Your task to perform on an android device: Open battery settings Image 0: 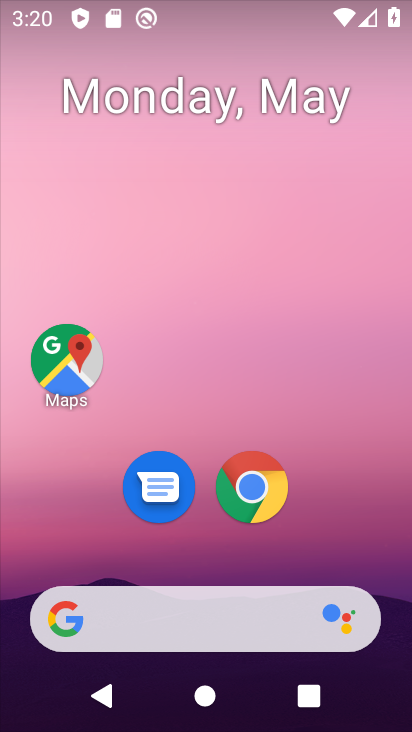
Step 0: drag from (231, 582) to (264, 245)
Your task to perform on an android device: Open battery settings Image 1: 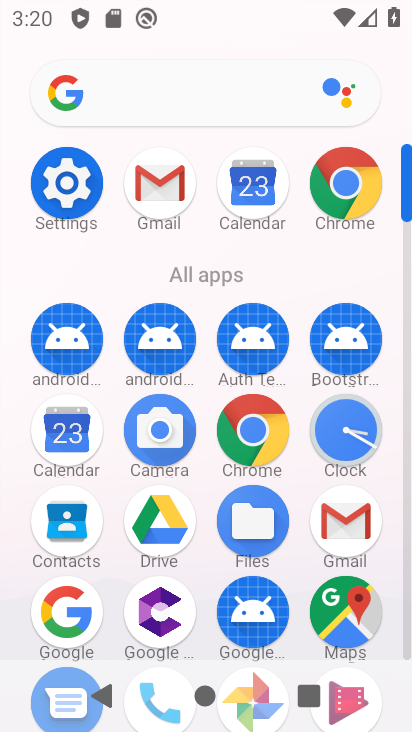
Step 1: click (78, 187)
Your task to perform on an android device: Open battery settings Image 2: 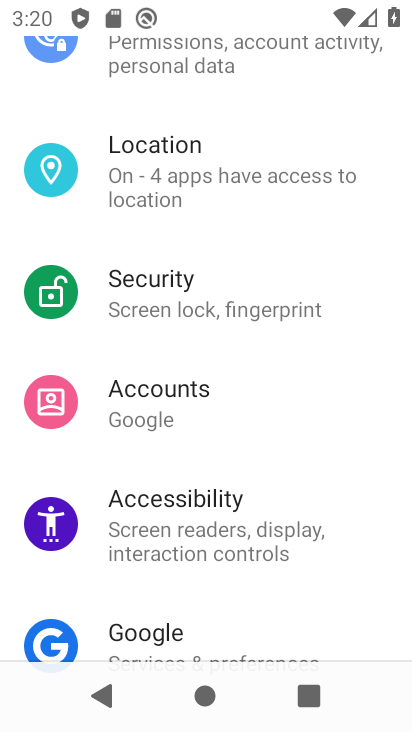
Step 2: drag from (190, 641) to (245, 233)
Your task to perform on an android device: Open battery settings Image 3: 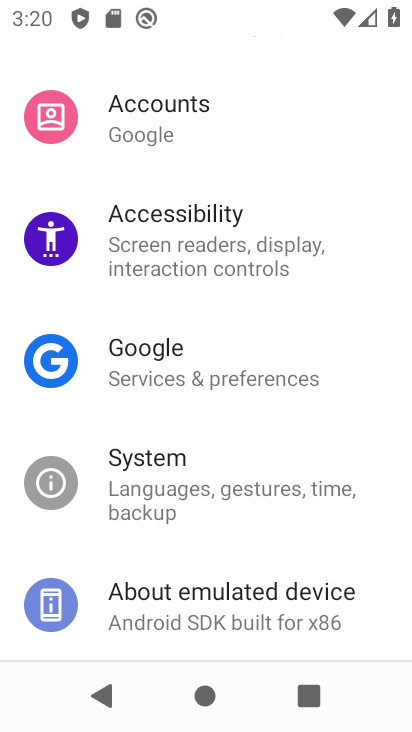
Step 3: drag from (240, 162) to (228, 610)
Your task to perform on an android device: Open battery settings Image 4: 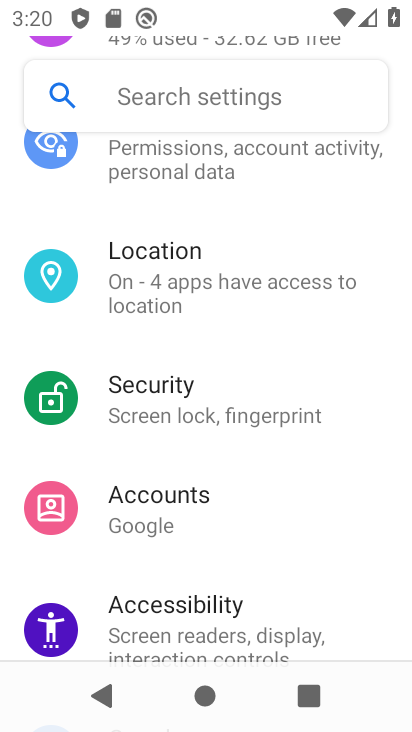
Step 4: drag from (242, 226) to (249, 570)
Your task to perform on an android device: Open battery settings Image 5: 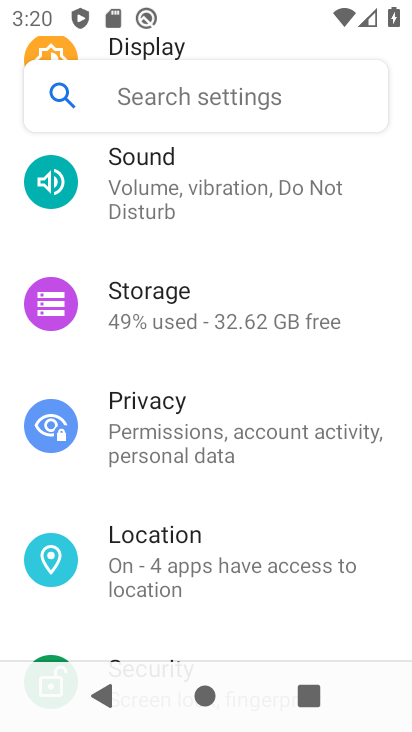
Step 5: drag from (192, 178) to (204, 522)
Your task to perform on an android device: Open battery settings Image 6: 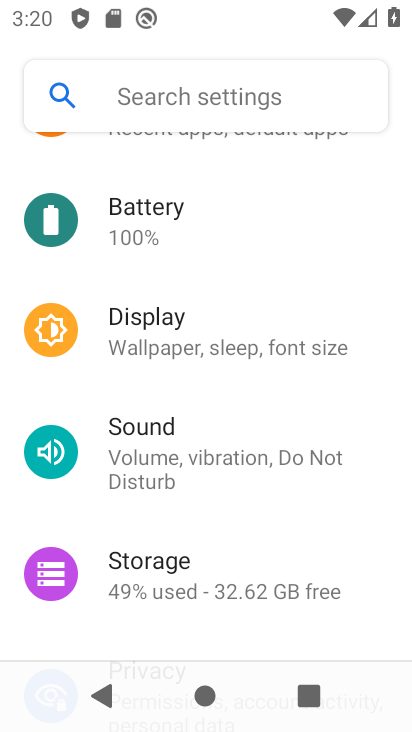
Step 6: click (139, 230)
Your task to perform on an android device: Open battery settings Image 7: 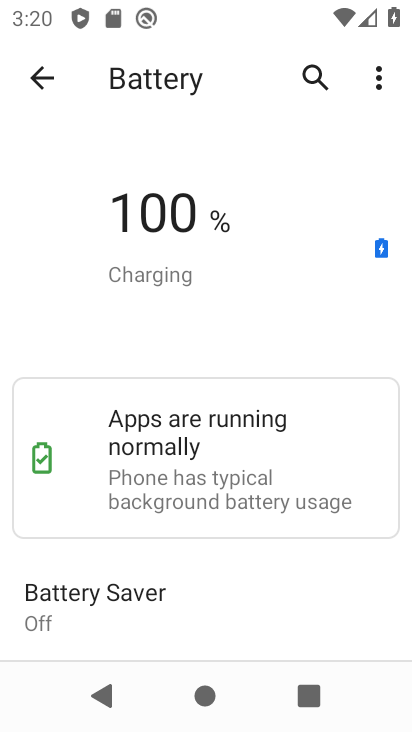
Step 7: task complete